Your task to perform on an android device: turn on translation in the chrome app Image 0: 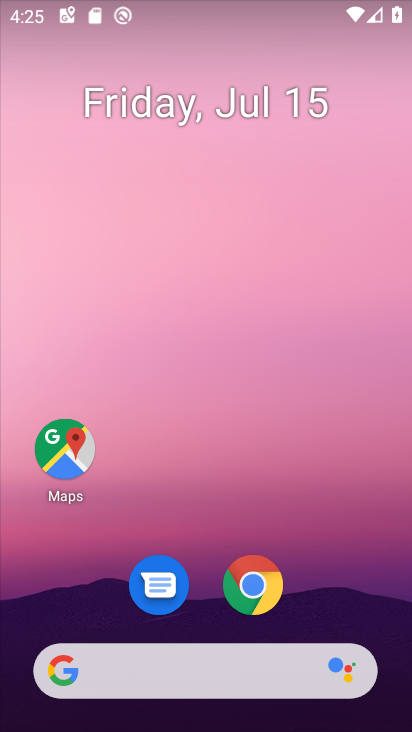
Step 0: drag from (239, 529) to (218, 238)
Your task to perform on an android device: turn on translation in the chrome app Image 1: 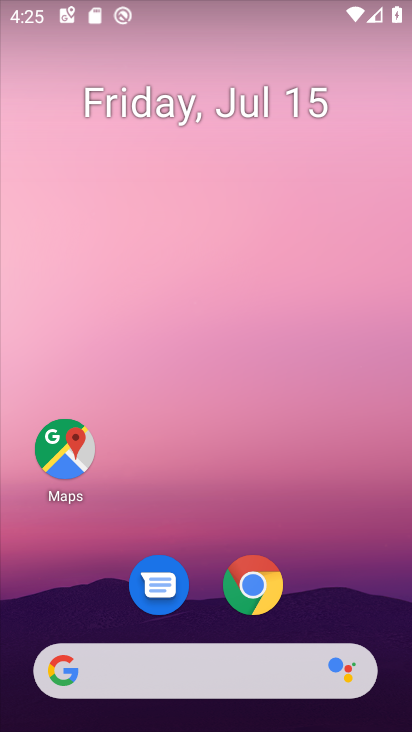
Step 1: click (257, 591)
Your task to perform on an android device: turn on translation in the chrome app Image 2: 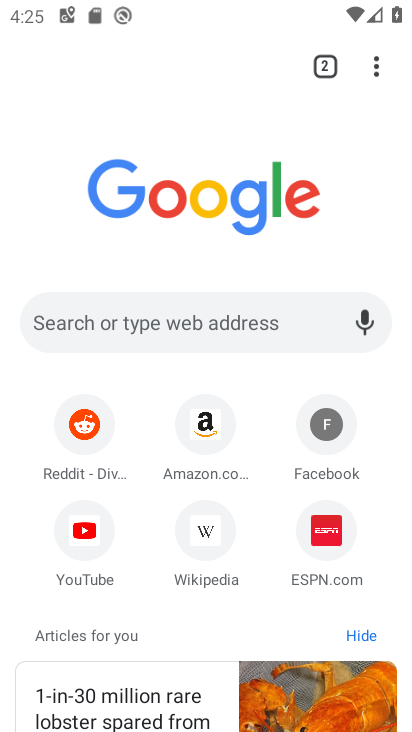
Step 2: click (373, 67)
Your task to perform on an android device: turn on translation in the chrome app Image 3: 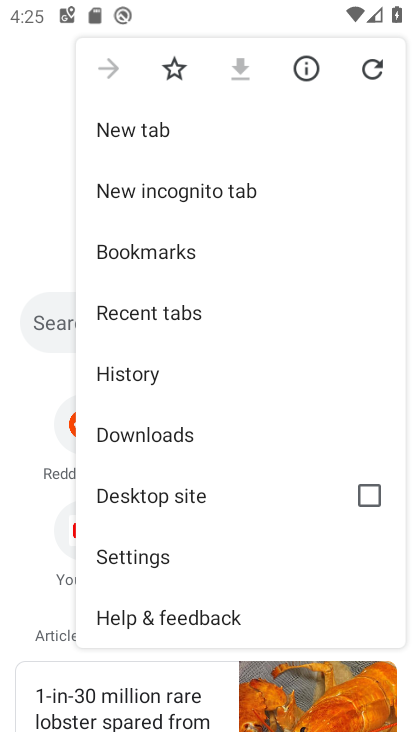
Step 3: click (155, 554)
Your task to perform on an android device: turn on translation in the chrome app Image 4: 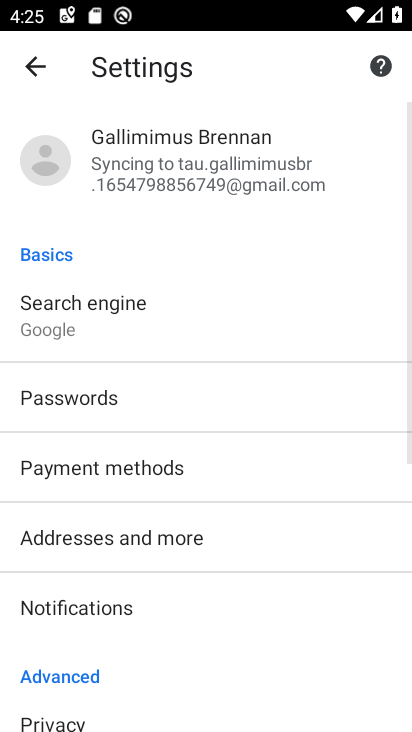
Step 4: drag from (170, 623) to (194, 174)
Your task to perform on an android device: turn on translation in the chrome app Image 5: 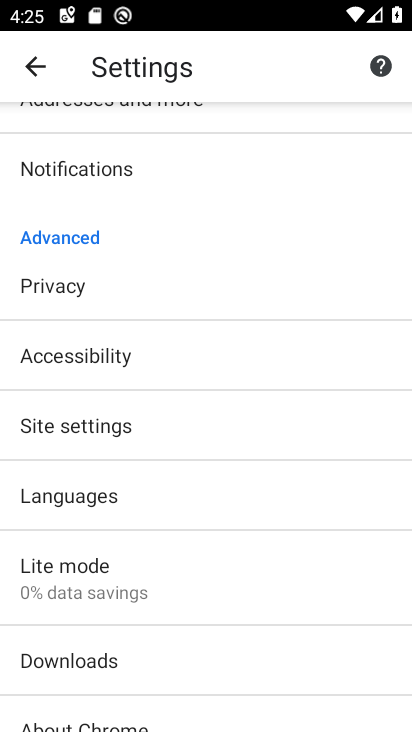
Step 5: click (120, 498)
Your task to perform on an android device: turn on translation in the chrome app Image 6: 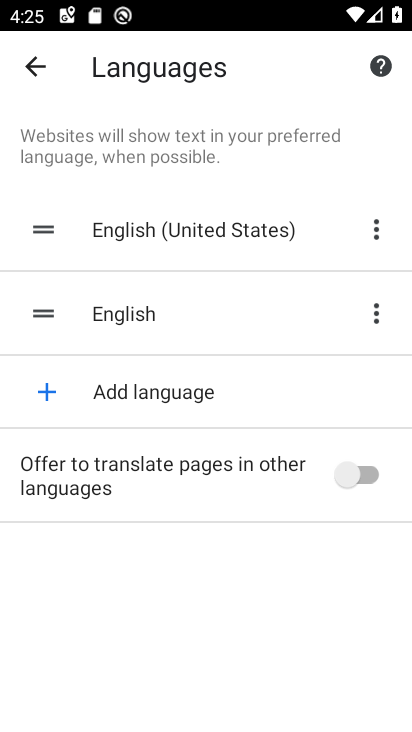
Step 6: click (362, 472)
Your task to perform on an android device: turn on translation in the chrome app Image 7: 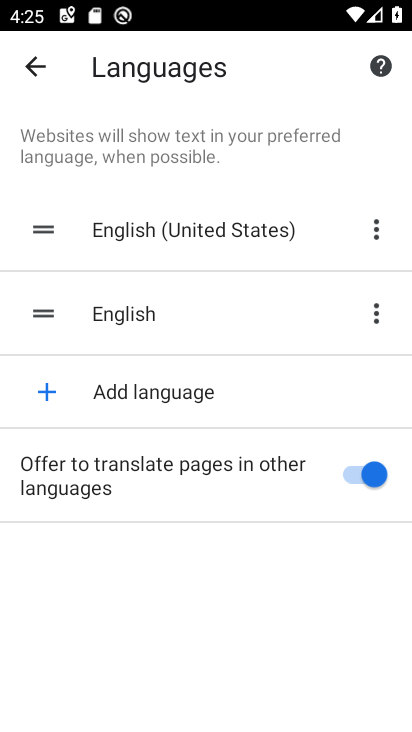
Step 7: task complete